Your task to perform on an android device: Go to wifi settings Image 0: 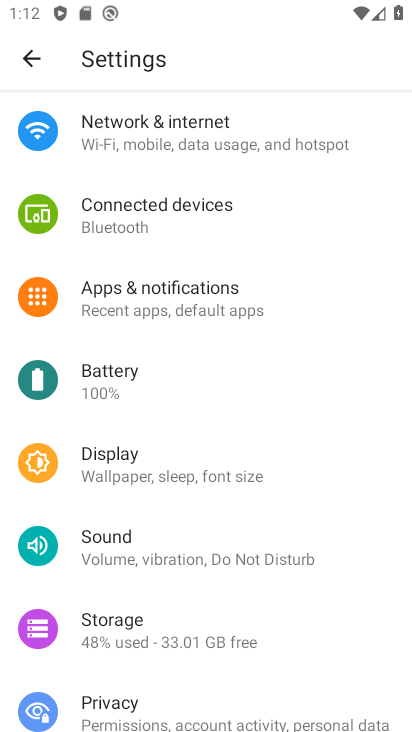
Step 0: press home button
Your task to perform on an android device: Go to wifi settings Image 1: 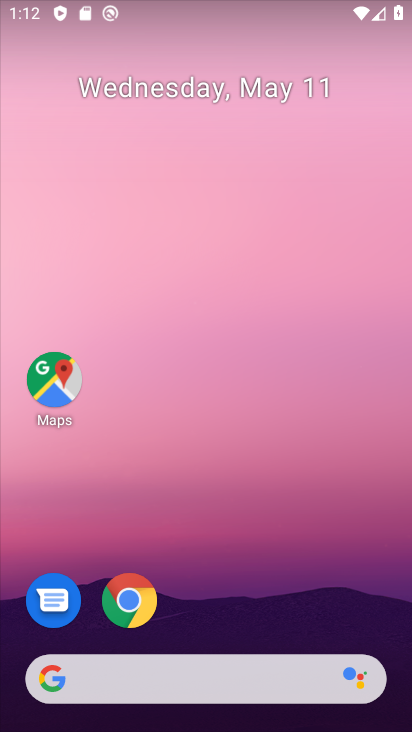
Step 1: drag from (222, 594) to (267, 268)
Your task to perform on an android device: Go to wifi settings Image 2: 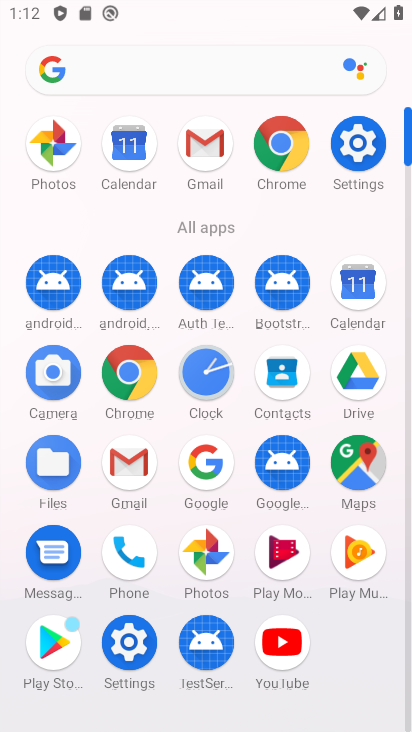
Step 2: click (355, 148)
Your task to perform on an android device: Go to wifi settings Image 3: 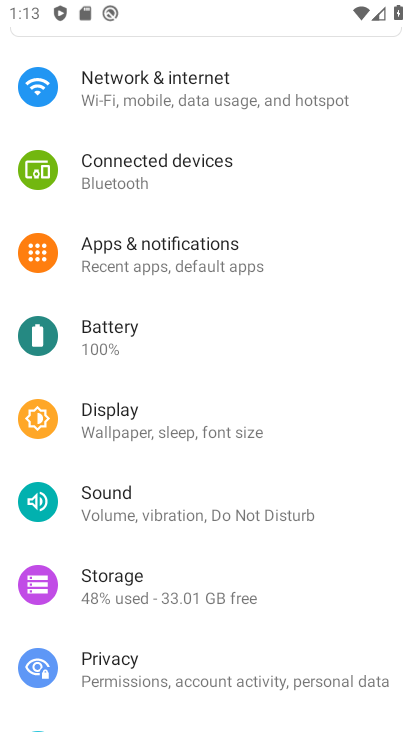
Step 3: click (195, 90)
Your task to perform on an android device: Go to wifi settings Image 4: 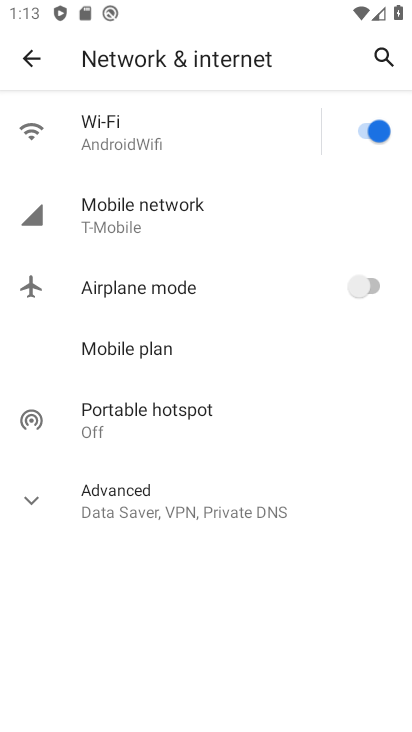
Step 4: task complete